Your task to perform on an android device: delete a single message in the gmail app Image 0: 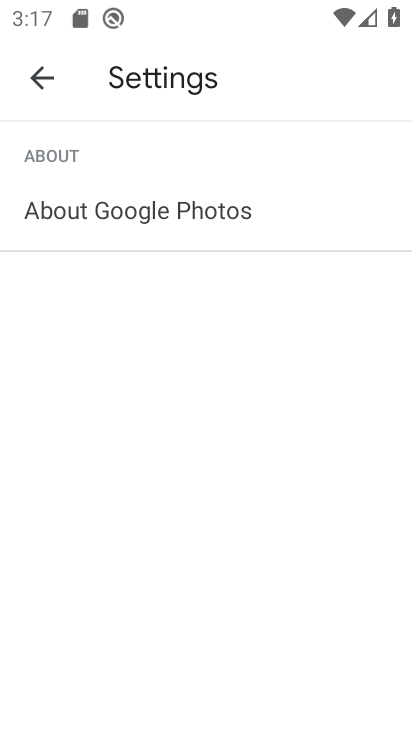
Step 0: press back button
Your task to perform on an android device: delete a single message in the gmail app Image 1: 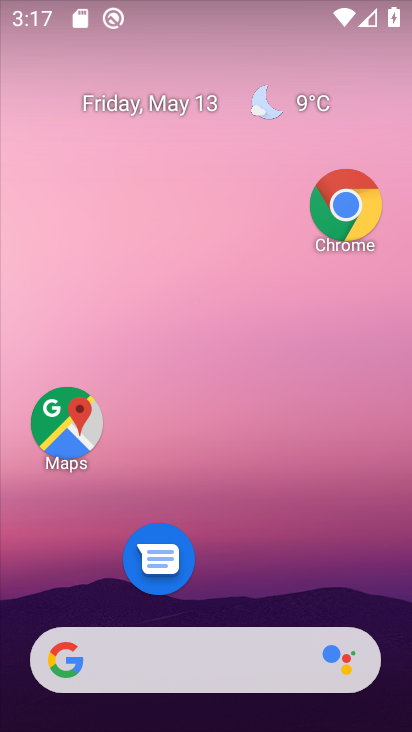
Step 1: drag from (239, 564) to (260, 84)
Your task to perform on an android device: delete a single message in the gmail app Image 2: 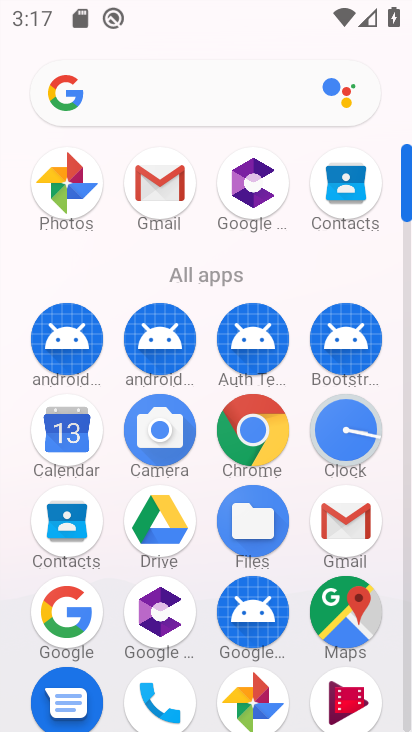
Step 2: click (151, 194)
Your task to perform on an android device: delete a single message in the gmail app Image 3: 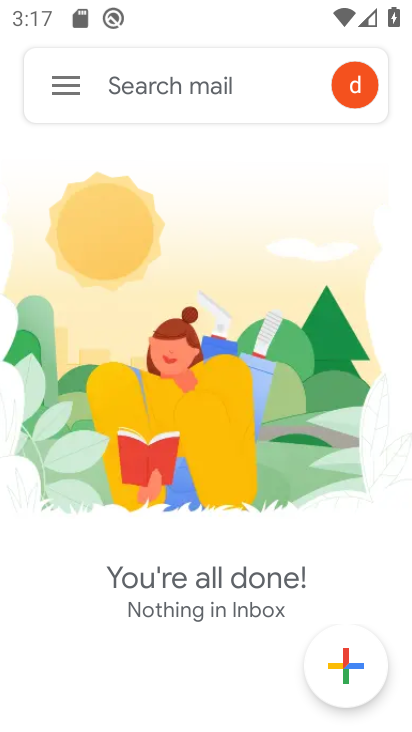
Step 3: click (74, 70)
Your task to perform on an android device: delete a single message in the gmail app Image 4: 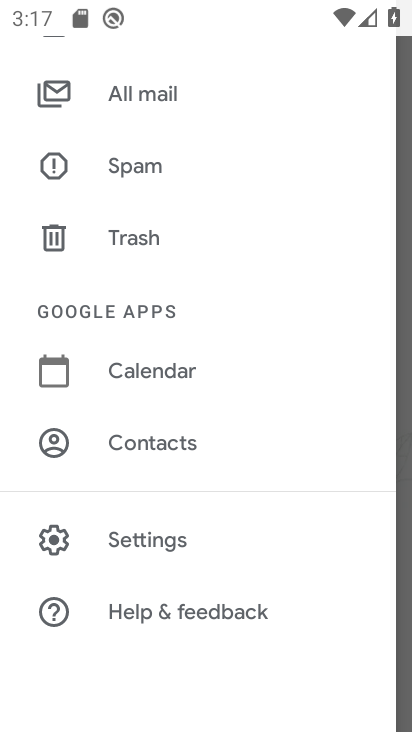
Step 4: click (129, 92)
Your task to perform on an android device: delete a single message in the gmail app Image 5: 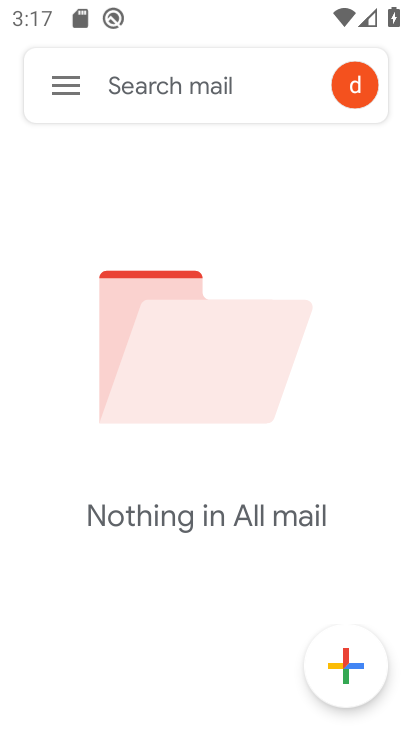
Step 5: task complete